Your task to perform on an android device: Go to Reddit.com Image 0: 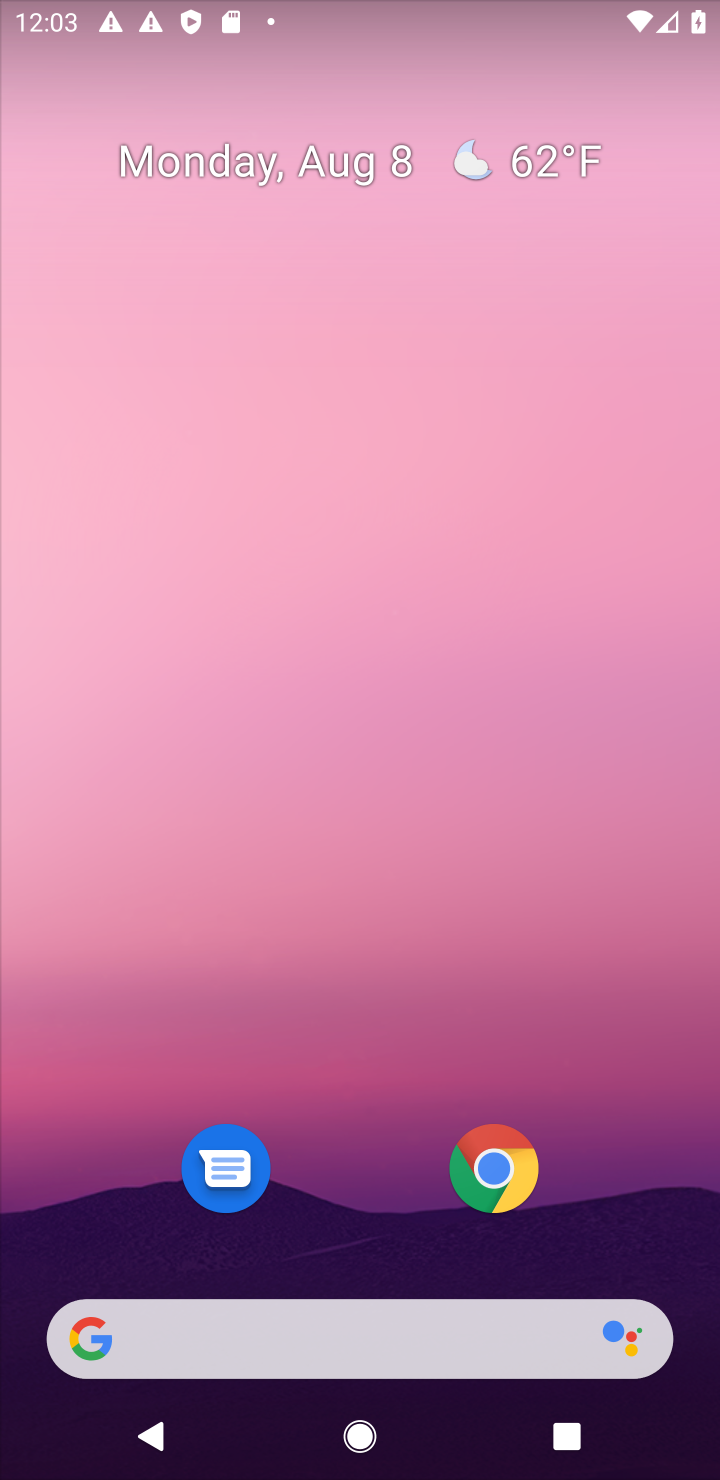
Step 0: click (508, 1172)
Your task to perform on an android device: Go to Reddit.com Image 1: 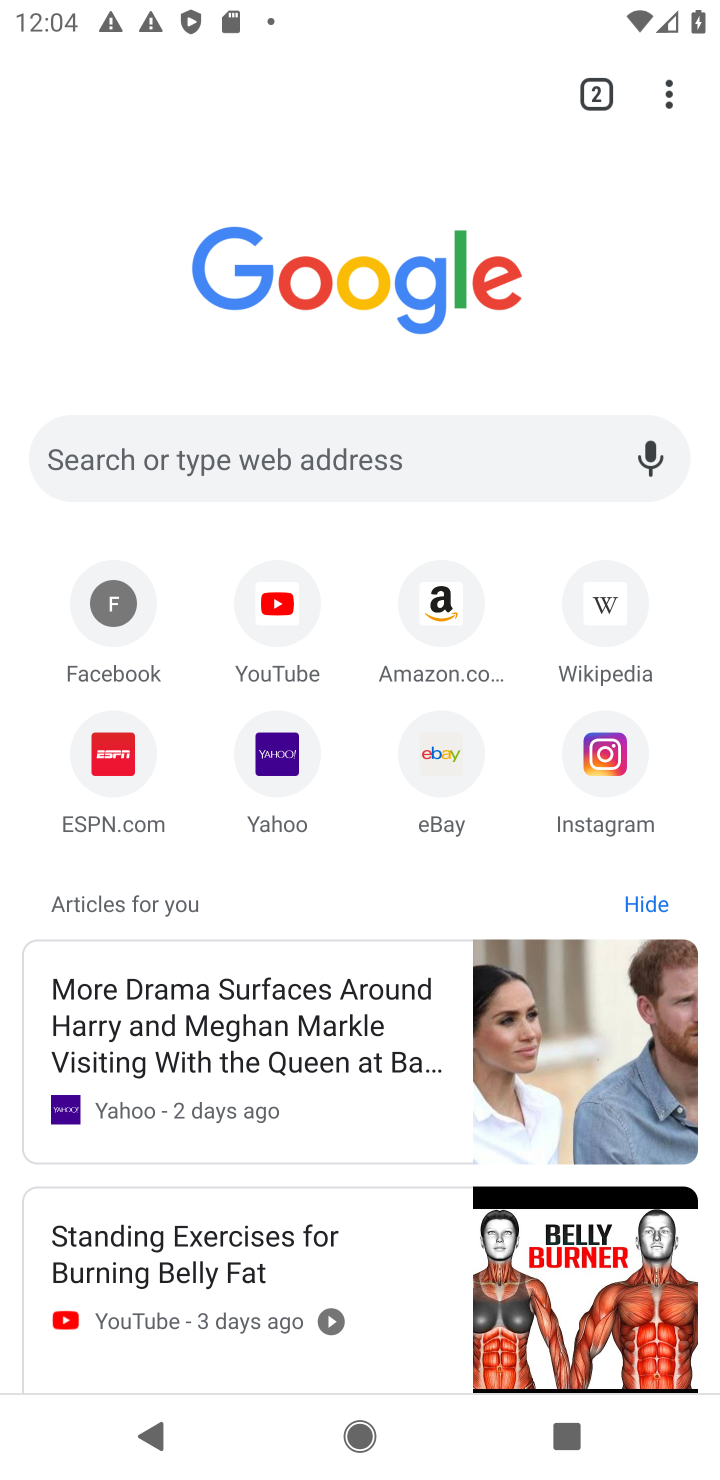
Step 1: click (283, 427)
Your task to perform on an android device: Go to Reddit.com Image 2: 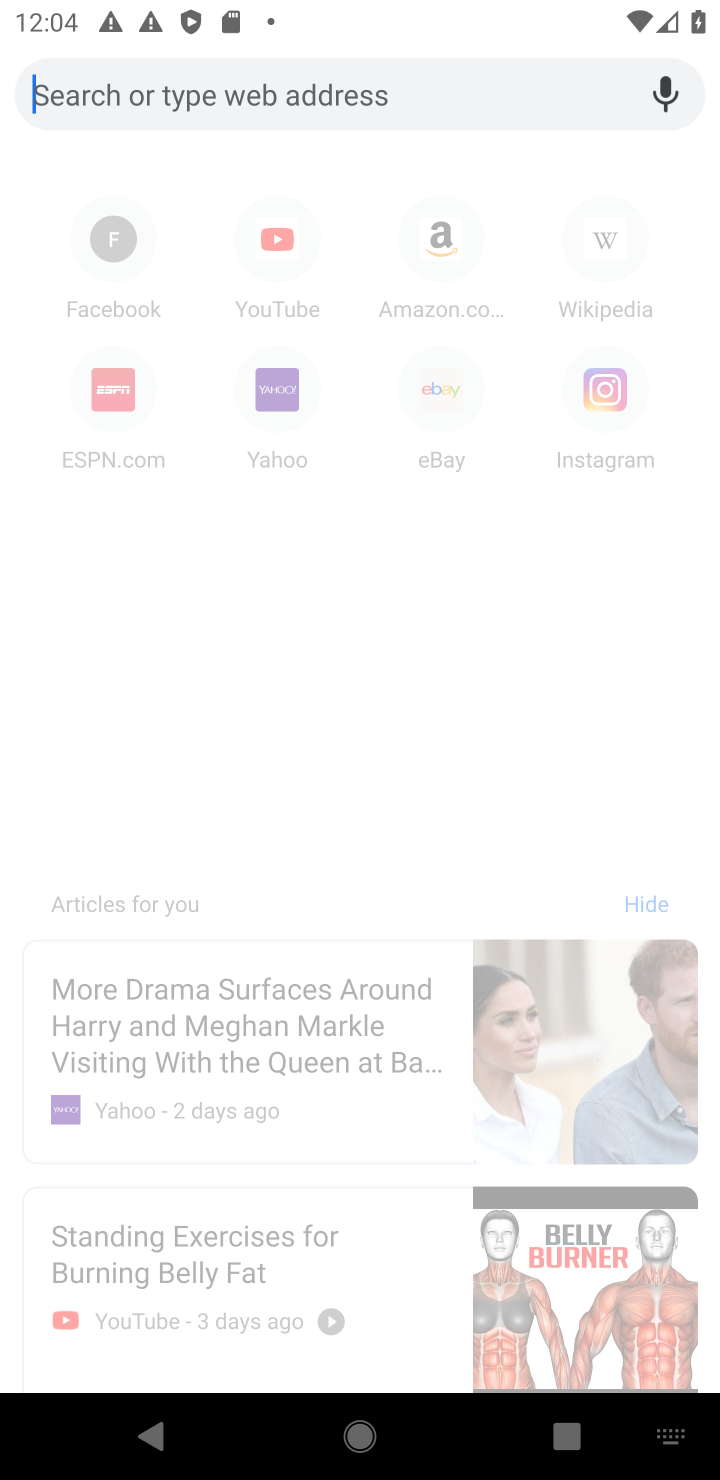
Step 2: type "reddit"
Your task to perform on an android device: Go to Reddit.com Image 3: 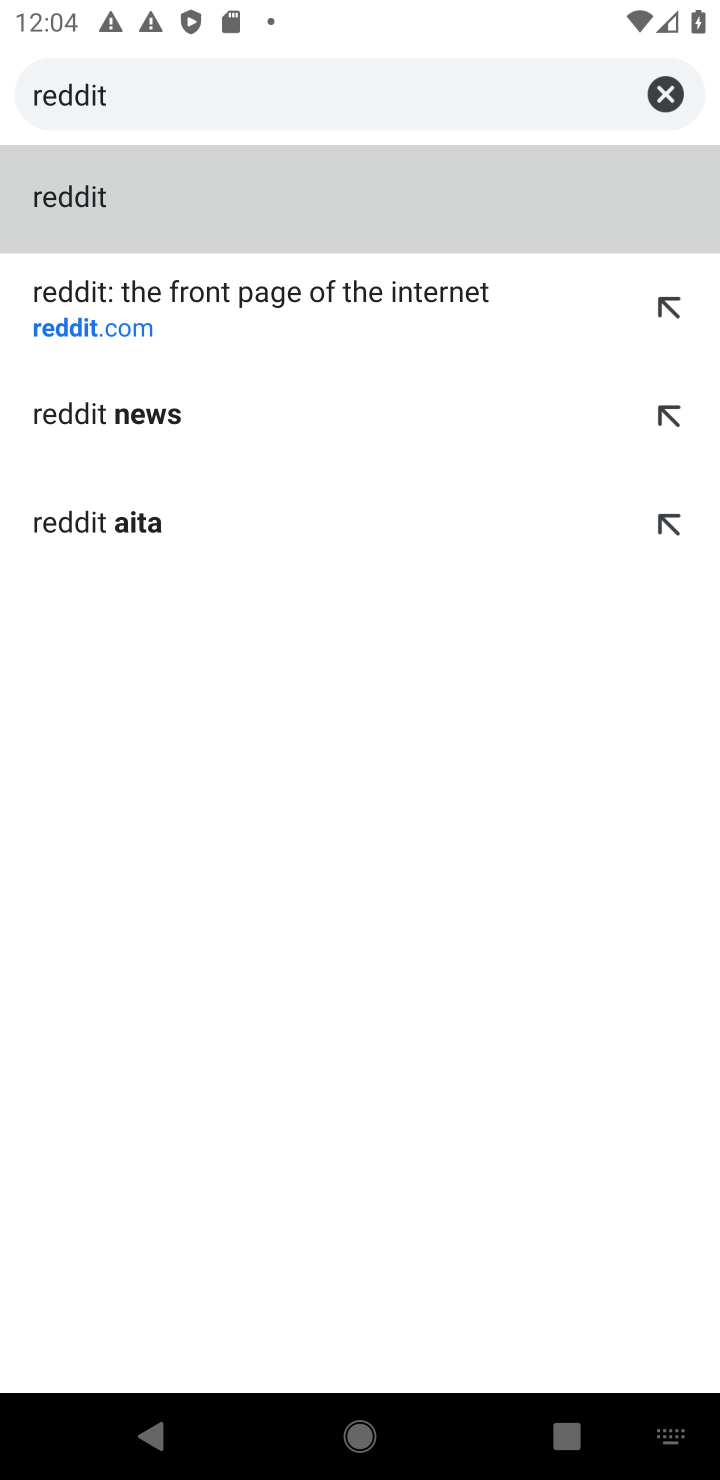
Step 3: click (124, 355)
Your task to perform on an android device: Go to Reddit.com Image 4: 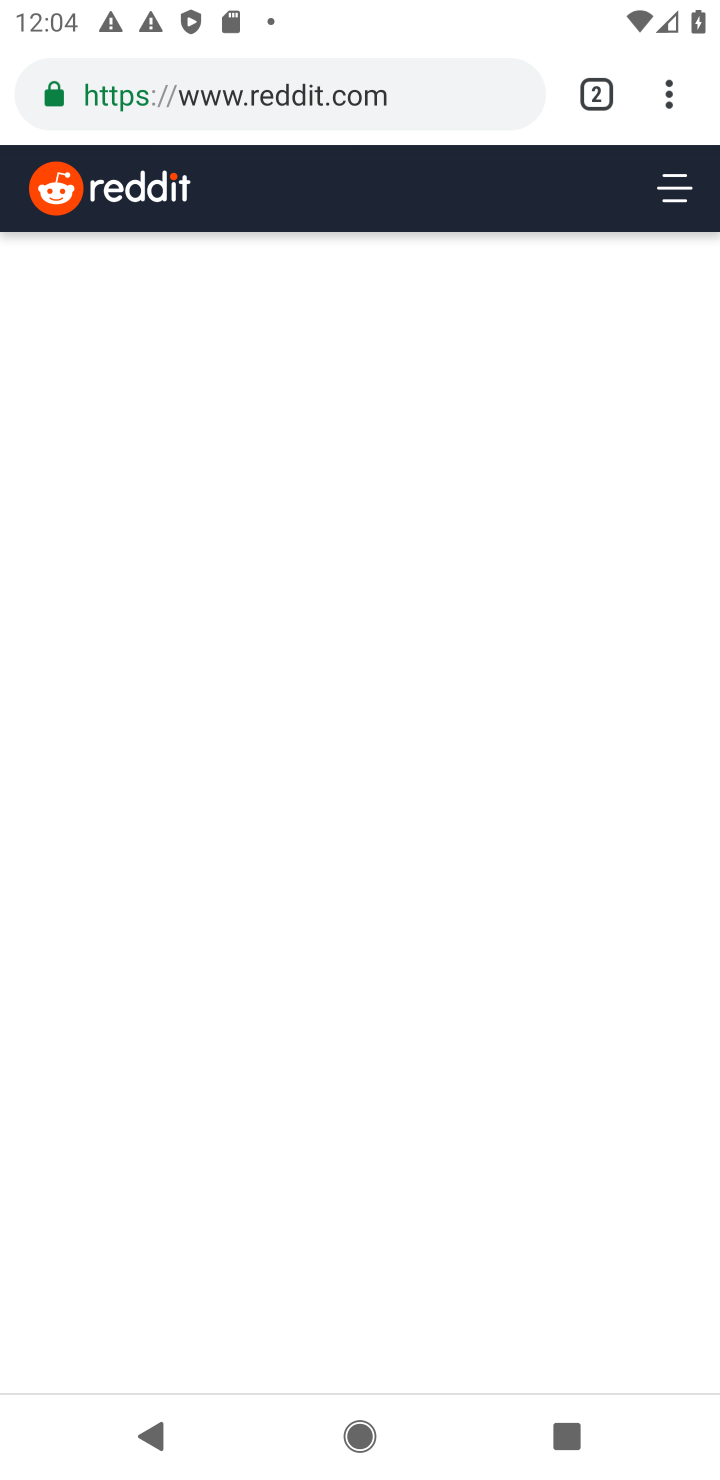
Step 4: task complete